Your task to perform on an android device: What's a good restaurant in Seattle? Image 0: 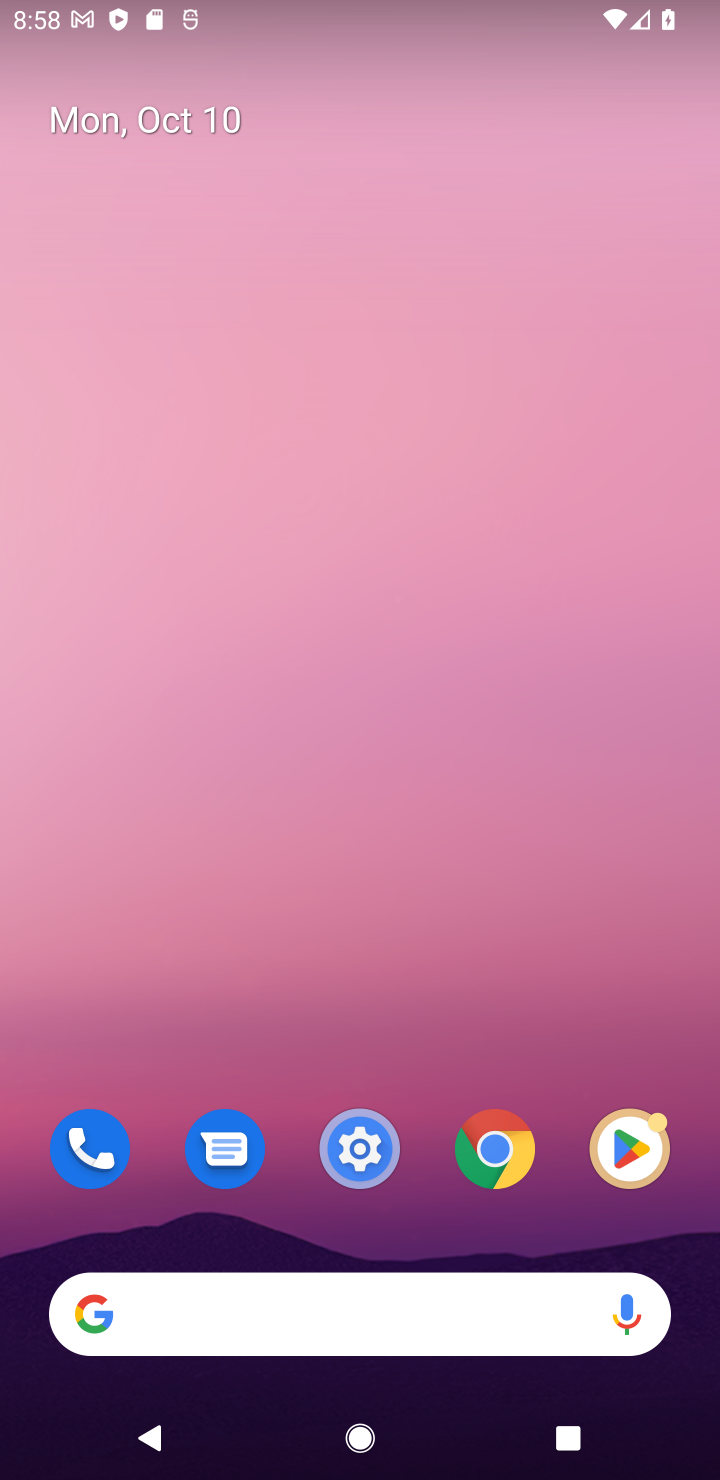
Step 0: click (428, 1339)
Your task to perform on an android device: What's a good restaurant in Seattle? Image 1: 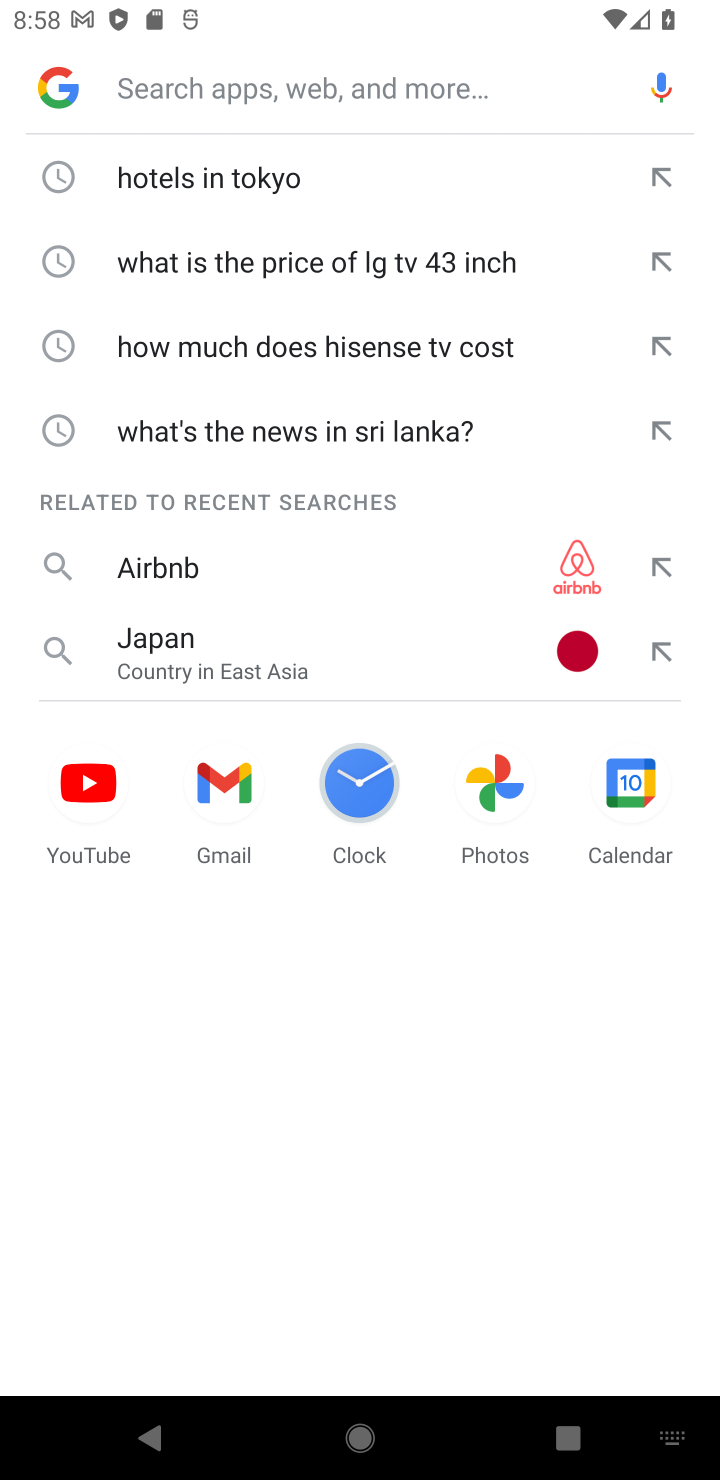
Step 1: type "restaurant in Seattle?"
Your task to perform on an android device: What's a good restaurant in Seattle? Image 2: 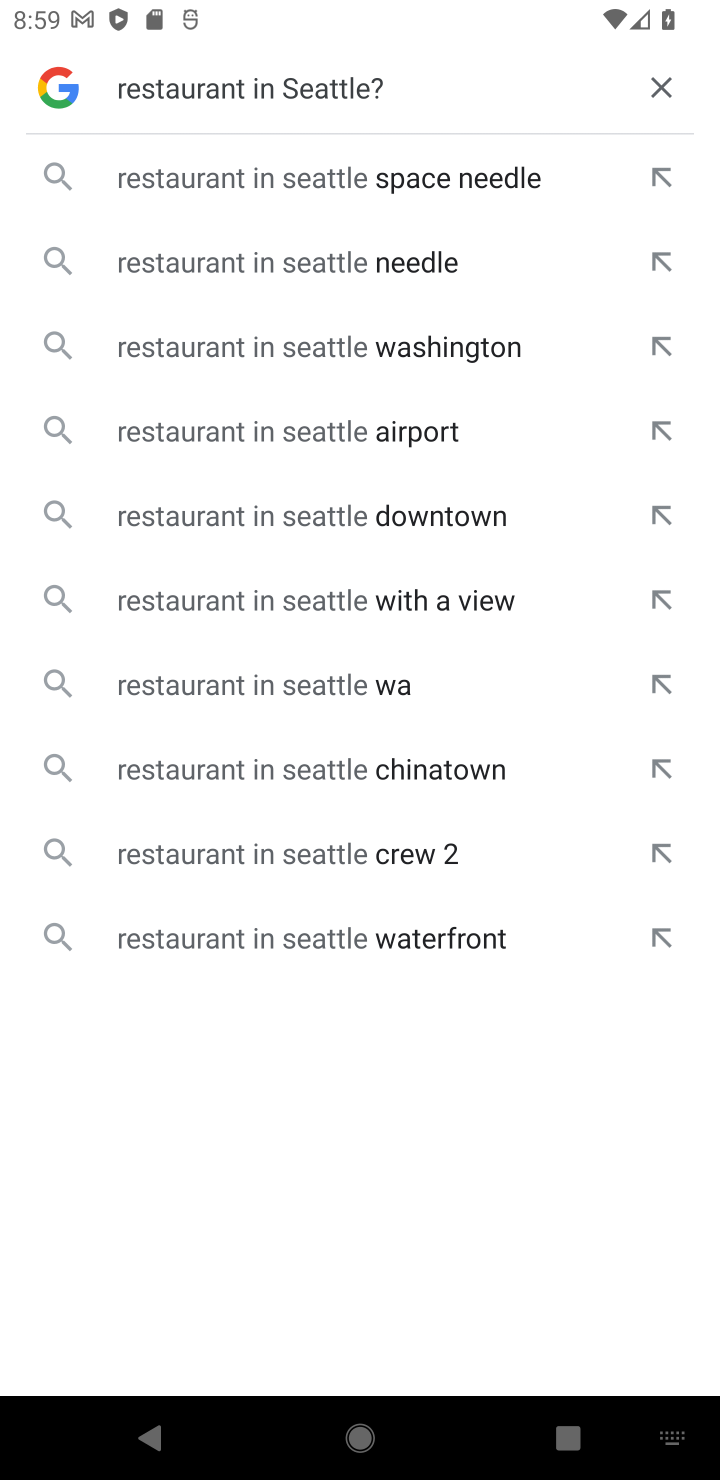
Step 2: click (140, 148)
Your task to perform on an android device: What's a good restaurant in Seattle? Image 3: 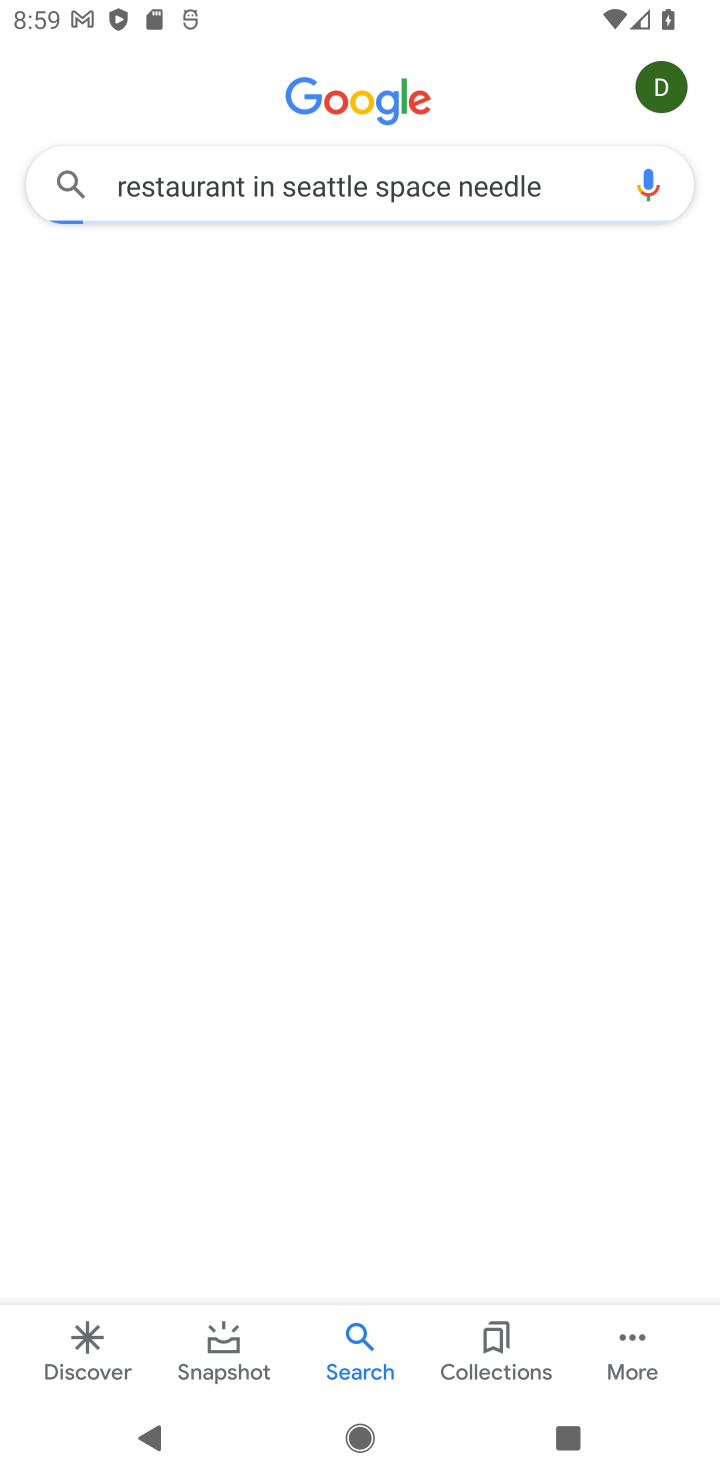
Step 3: task complete